Your task to perform on an android device: Go to battery settings Image 0: 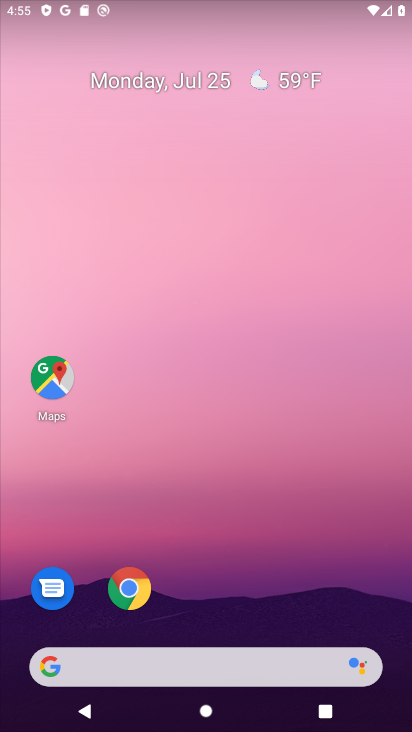
Step 0: click (283, 582)
Your task to perform on an android device: Go to battery settings Image 1: 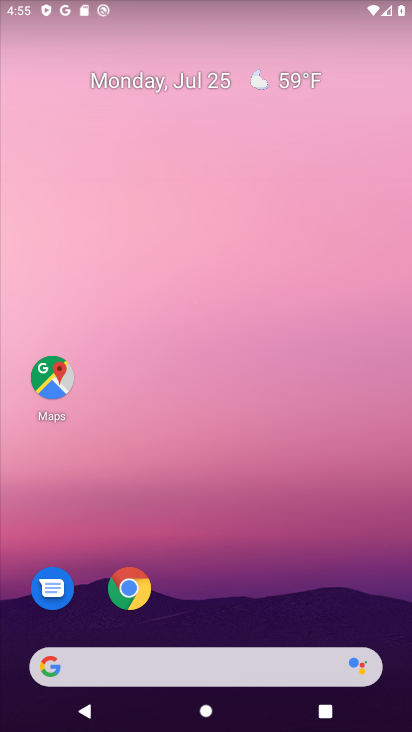
Step 1: drag from (283, 582) to (271, 290)
Your task to perform on an android device: Go to battery settings Image 2: 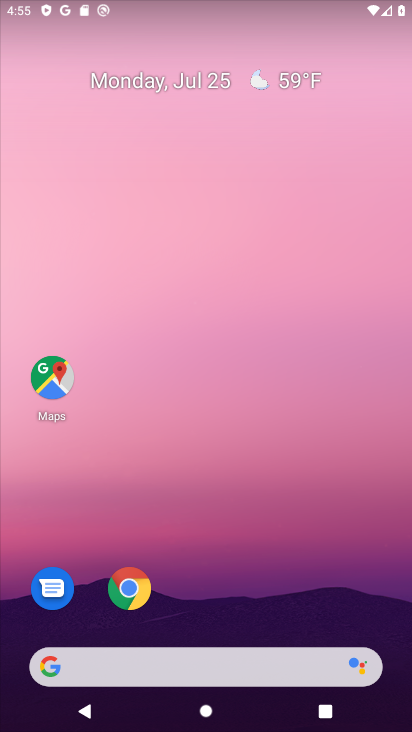
Step 2: drag from (265, 474) to (254, 90)
Your task to perform on an android device: Go to battery settings Image 3: 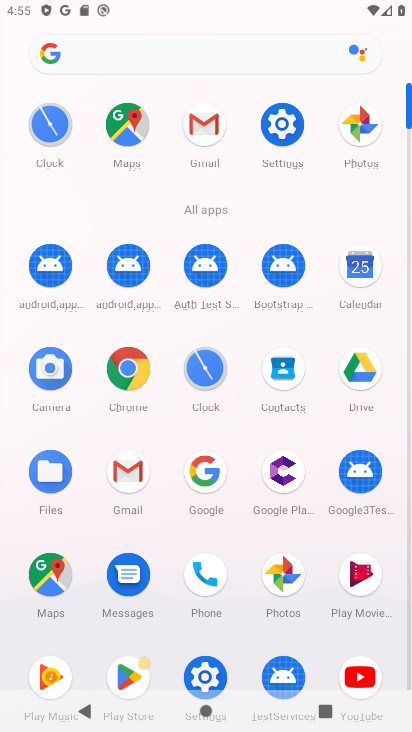
Step 3: click (196, 671)
Your task to perform on an android device: Go to battery settings Image 4: 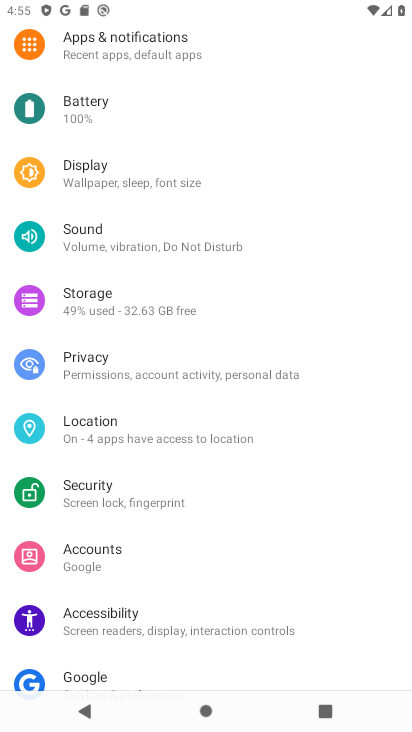
Step 4: click (122, 108)
Your task to perform on an android device: Go to battery settings Image 5: 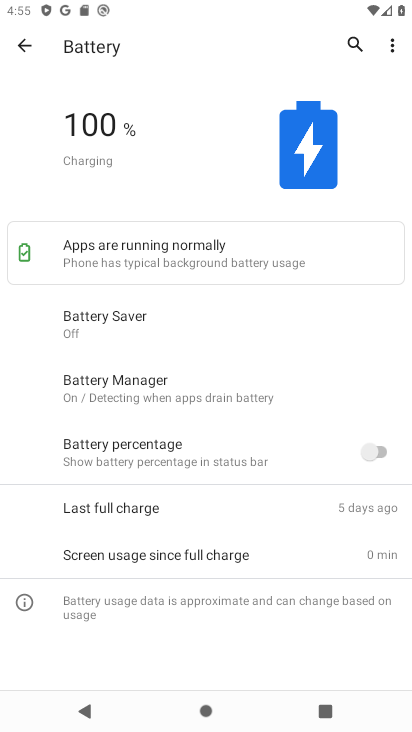
Step 5: task complete